Your task to perform on an android device: Open Wikipedia Image 0: 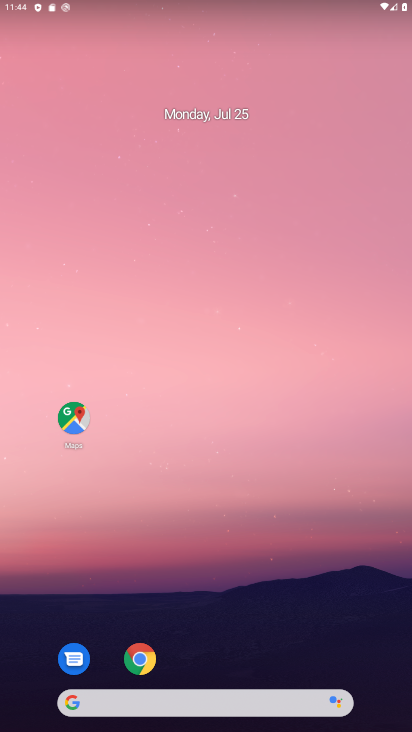
Step 0: drag from (324, 606) to (263, 115)
Your task to perform on an android device: Open Wikipedia Image 1: 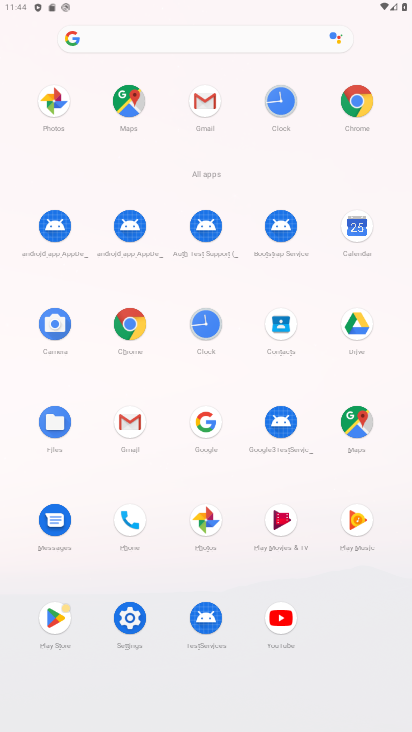
Step 1: click (350, 99)
Your task to perform on an android device: Open Wikipedia Image 2: 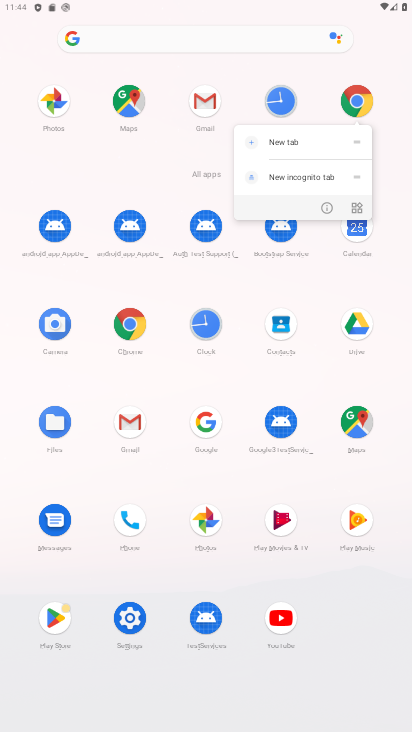
Step 2: click (364, 96)
Your task to perform on an android device: Open Wikipedia Image 3: 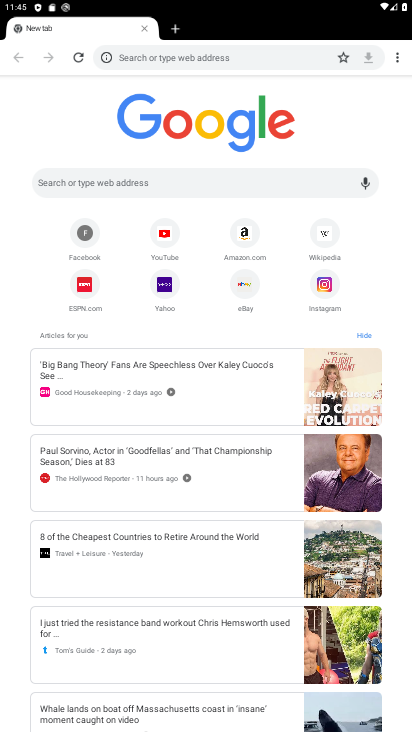
Step 3: click (196, 56)
Your task to perform on an android device: Open Wikipedia Image 4: 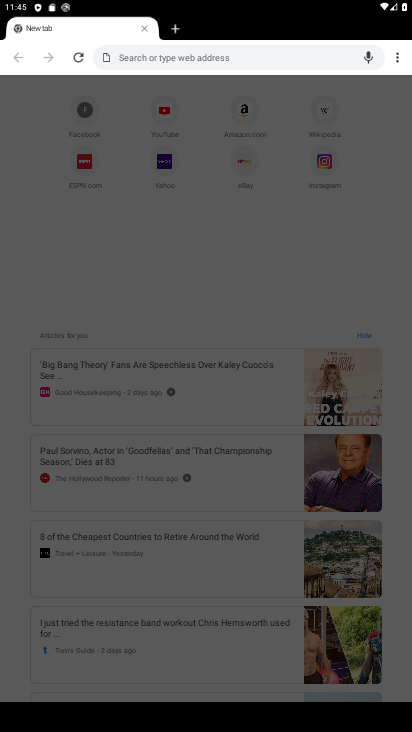
Step 4: type "wikipedia"
Your task to perform on an android device: Open Wikipedia Image 5: 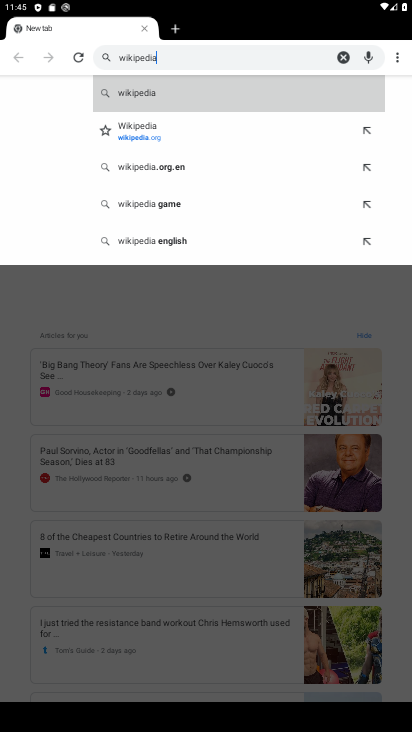
Step 5: click (142, 128)
Your task to perform on an android device: Open Wikipedia Image 6: 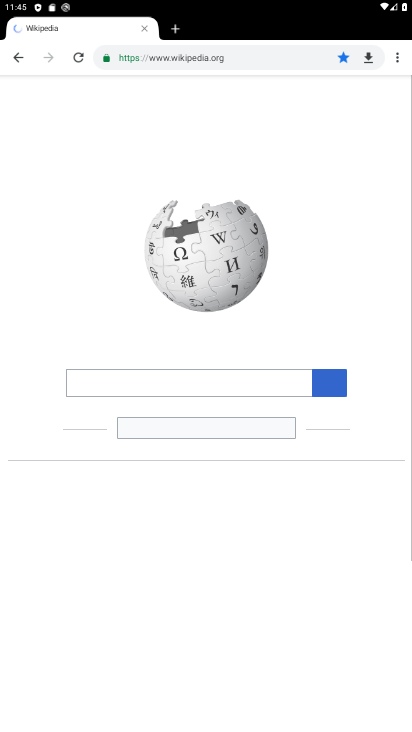
Step 6: task complete